Your task to perform on an android device: Go to Maps Image 0: 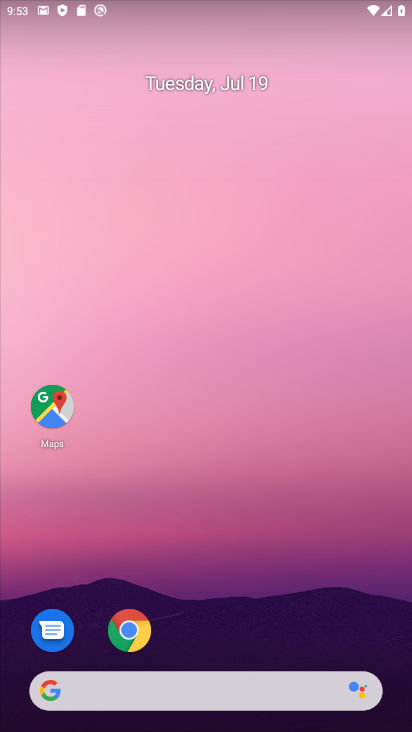
Step 0: click (53, 405)
Your task to perform on an android device: Go to Maps Image 1: 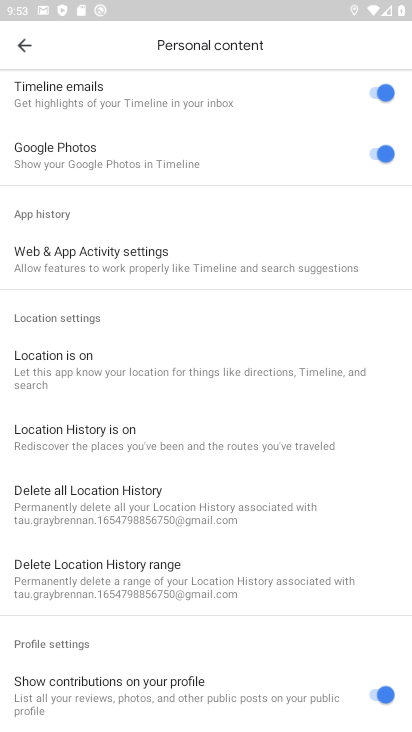
Step 1: click (30, 45)
Your task to perform on an android device: Go to Maps Image 2: 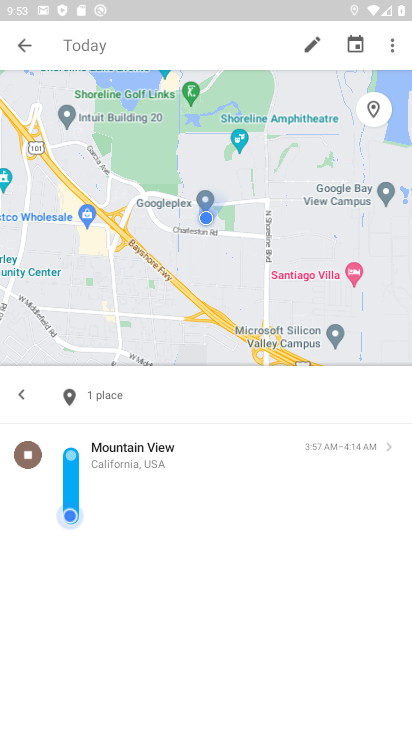
Step 2: task complete